Your task to perform on an android device: turn vacation reply on in the gmail app Image 0: 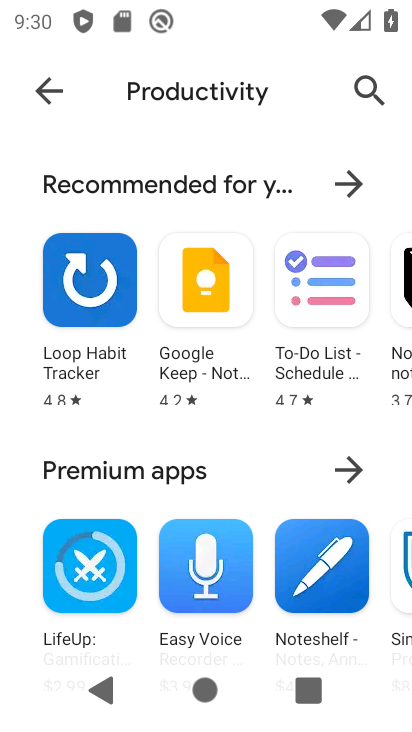
Step 0: press home button
Your task to perform on an android device: turn vacation reply on in the gmail app Image 1: 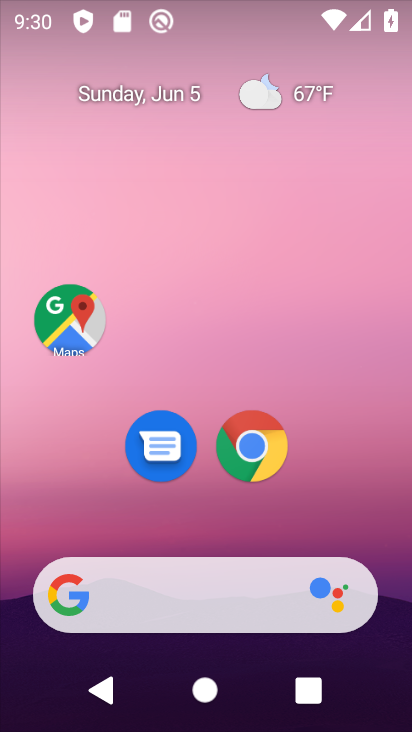
Step 1: drag from (207, 487) to (231, 110)
Your task to perform on an android device: turn vacation reply on in the gmail app Image 2: 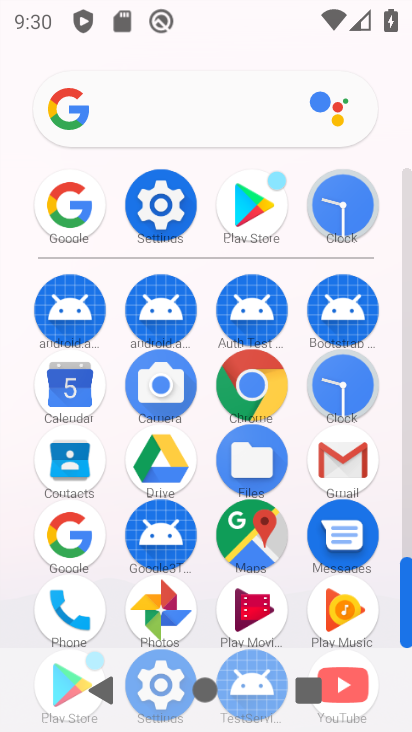
Step 2: click (329, 448)
Your task to perform on an android device: turn vacation reply on in the gmail app Image 3: 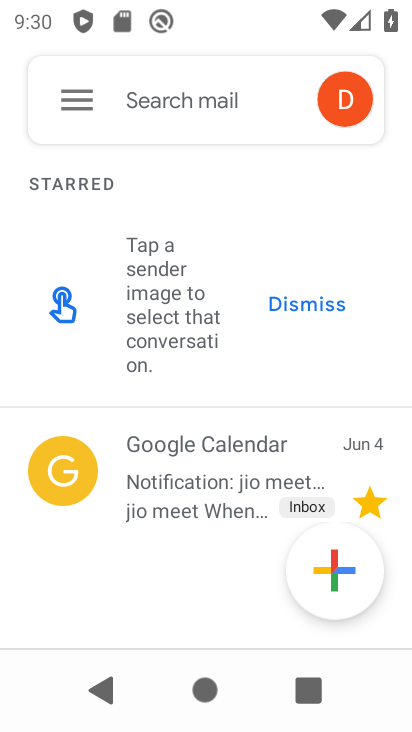
Step 3: click (72, 107)
Your task to perform on an android device: turn vacation reply on in the gmail app Image 4: 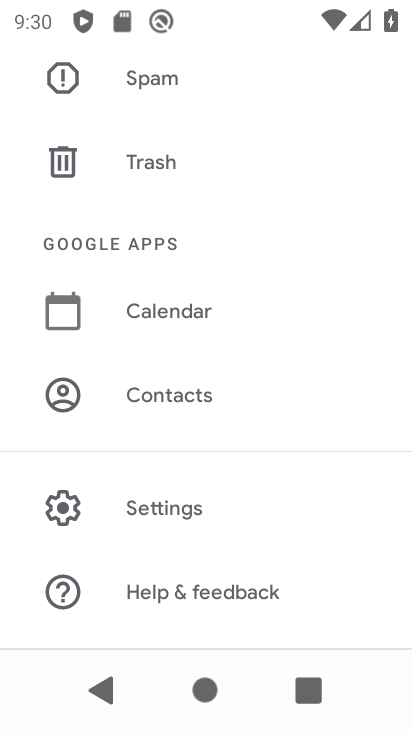
Step 4: click (191, 504)
Your task to perform on an android device: turn vacation reply on in the gmail app Image 5: 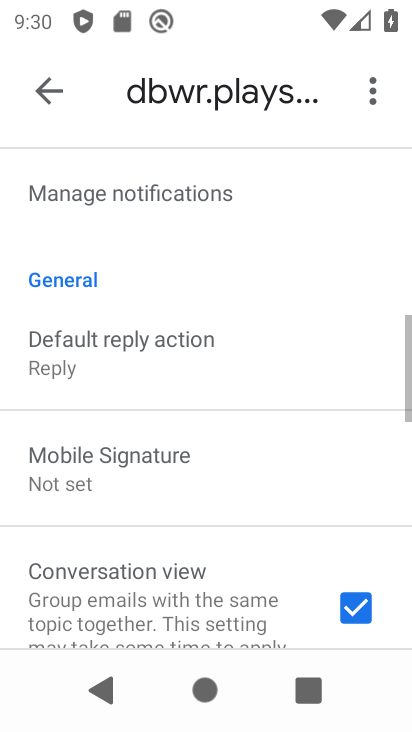
Step 5: drag from (213, 565) to (224, 294)
Your task to perform on an android device: turn vacation reply on in the gmail app Image 6: 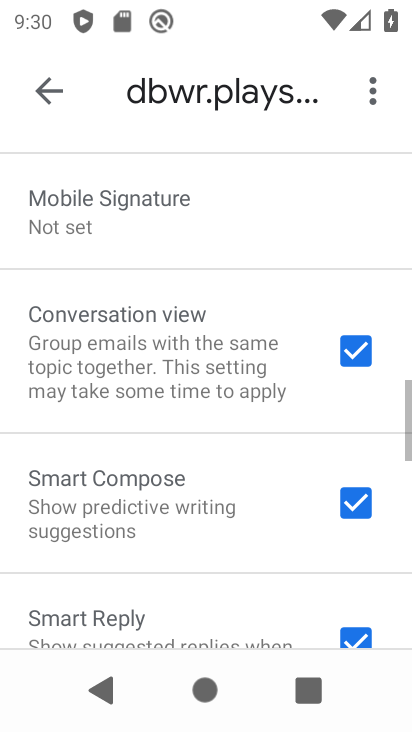
Step 6: drag from (256, 619) to (239, 304)
Your task to perform on an android device: turn vacation reply on in the gmail app Image 7: 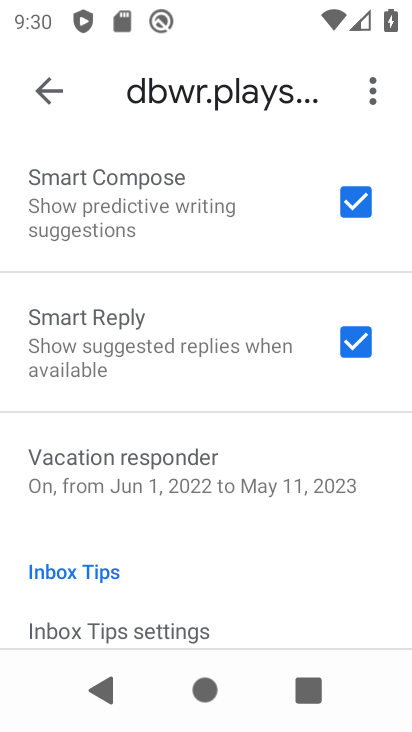
Step 7: click (221, 454)
Your task to perform on an android device: turn vacation reply on in the gmail app Image 8: 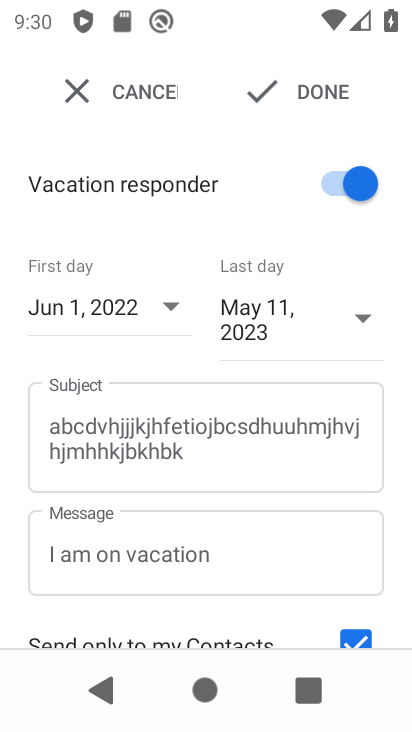
Step 8: task complete